Your task to perform on an android device: Open Google Image 0: 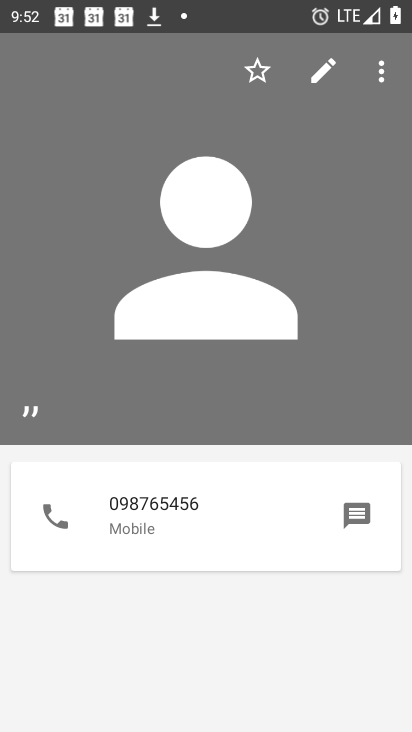
Step 0: press home button
Your task to perform on an android device: Open Google Image 1: 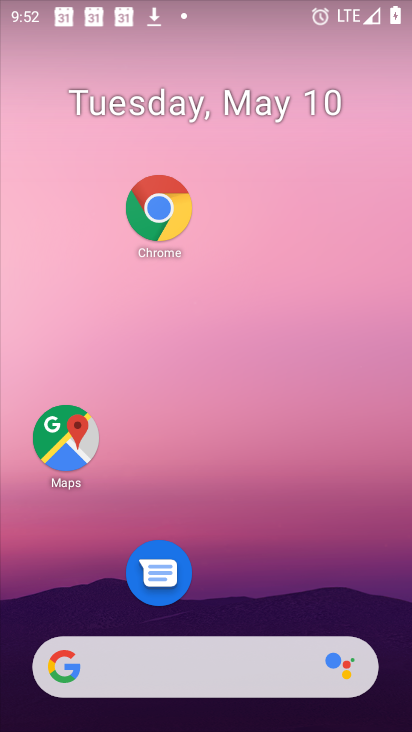
Step 1: drag from (265, 681) to (411, 148)
Your task to perform on an android device: Open Google Image 2: 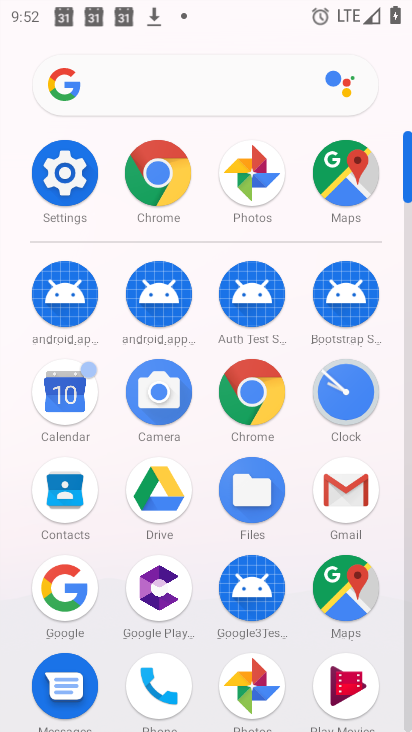
Step 2: click (64, 89)
Your task to perform on an android device: Open Google Image 3: 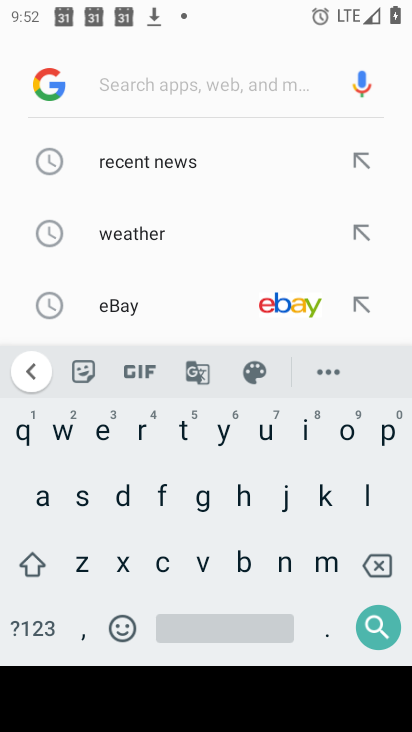
Step 3: click (50, 91)
Your task to perform on an android device: Open Google Image 4: 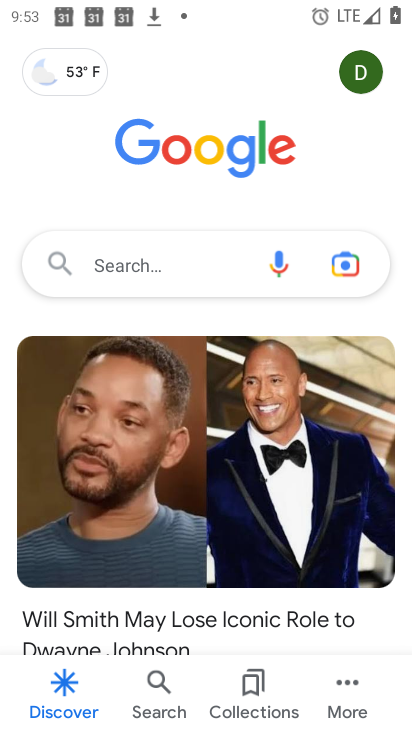
Step 4: task complete